Your task to perform on an android device: turn pop-ups on in chrome Image 0: 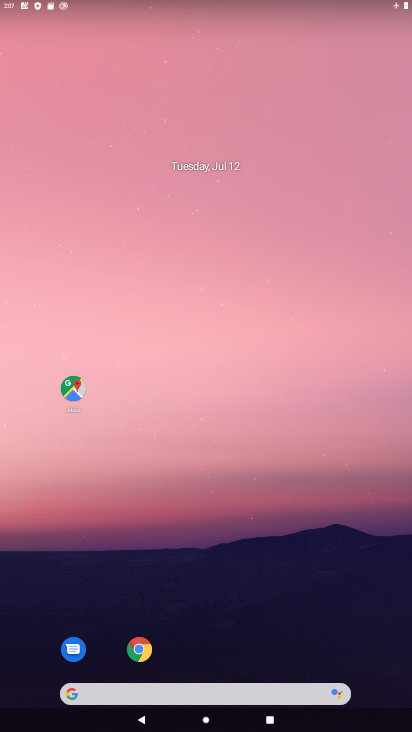
Step 0: click (149, 657)
Your task to perform on an android device: turn pop-ups on in chrome Image 1: 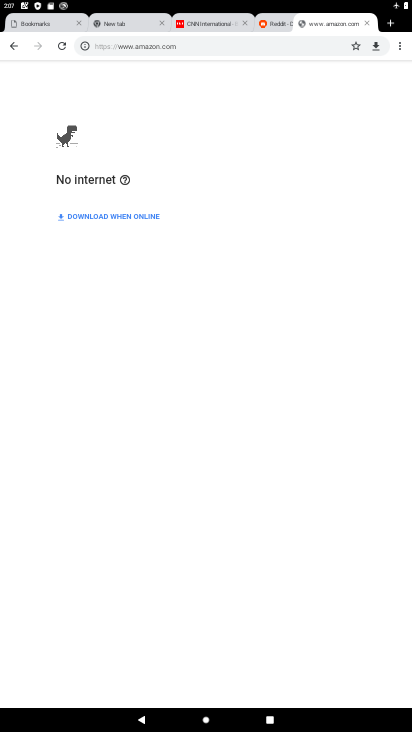
Step 1: click (393, 44)
Your task to perform on an android device: turn pop-ups on in chrome Image 2: 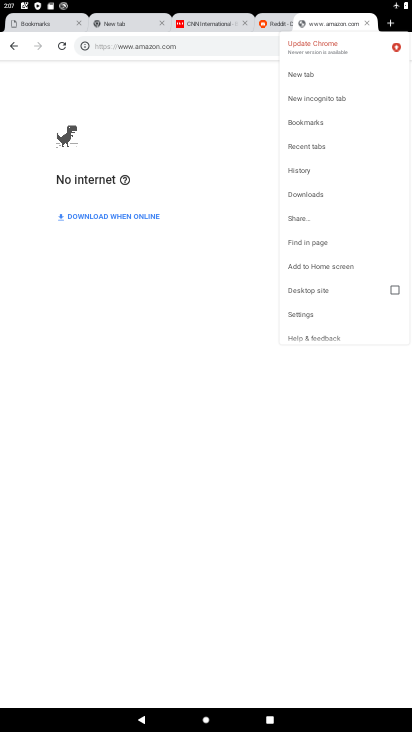
Step 2: click (316, 313)
Your task to perform on an android device: turn pop-ups on in chrome Image 3: 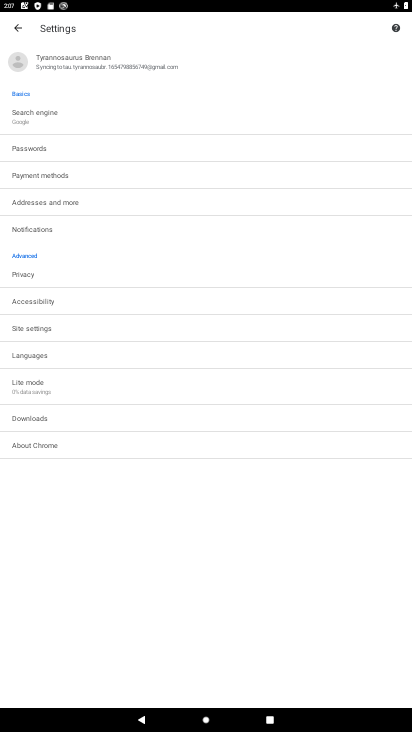
Step 3: click (156, 339)
Your task to perform on an android device: turn pop-ups on in chrome Image 4: 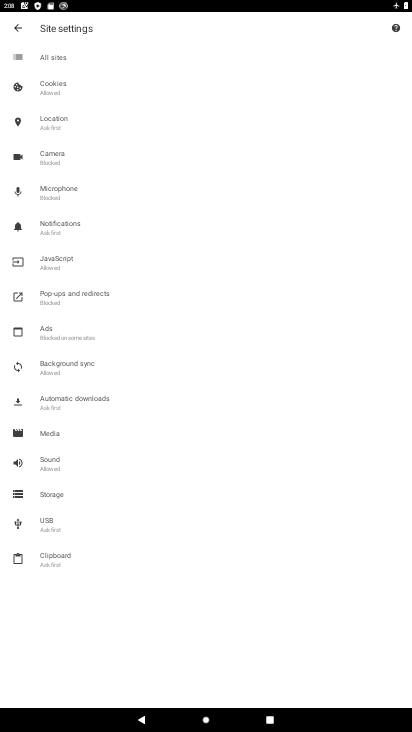
Step 4: click (111, 290)
Your task to perform on an android device: turn pop-ups on in chrome Image 5: 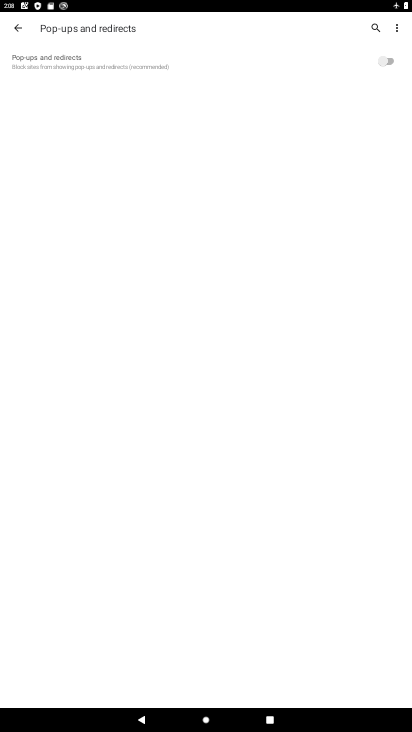
Step 5: task complete